Your task to perform on an android device: Open Google Chrome Image 0: 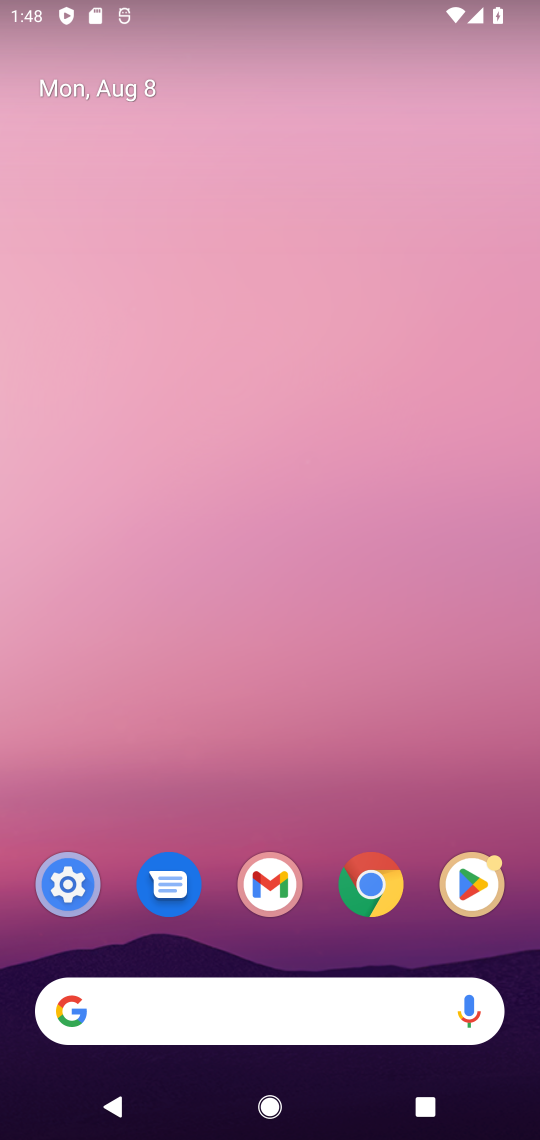
Step 0: click (371, 888)
Your task to perform on an android device: Open Google Chrome Image 1: 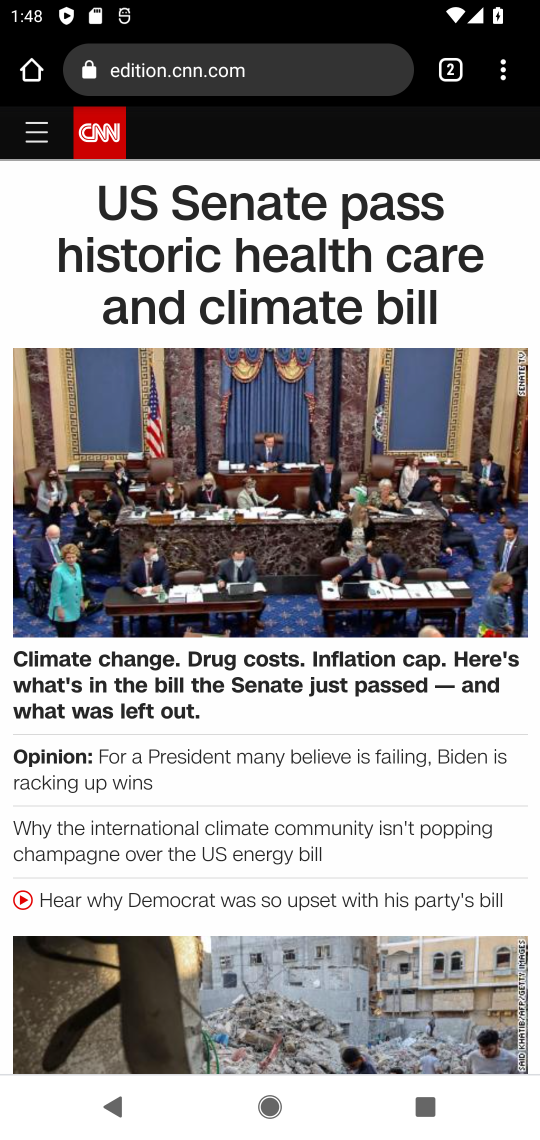
Step 1: task complete